Your task to perform on an android device: turn on data saver in the chrome app Image 0: 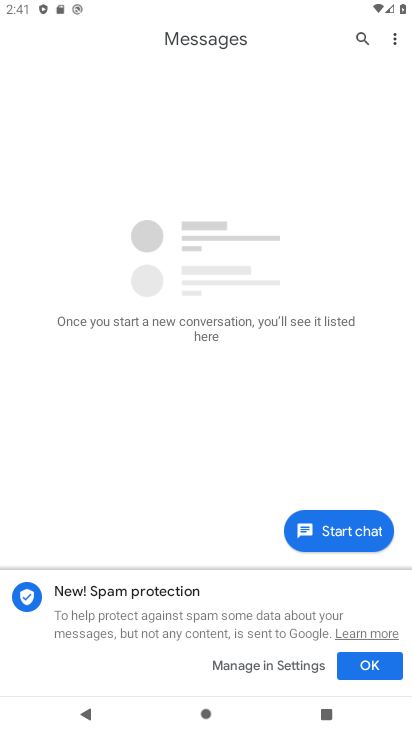
Step 0: press home button
Your task to perform on an android device: turn on data saver in the chrome app Image 1: 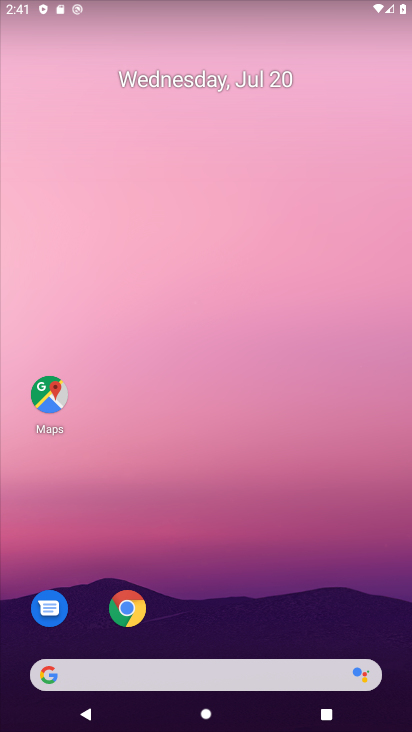
Step 1: drag from (263, 610) to (252, 95)
Your task to perform on an android device: turn on data saver in the chrome app Image 2: 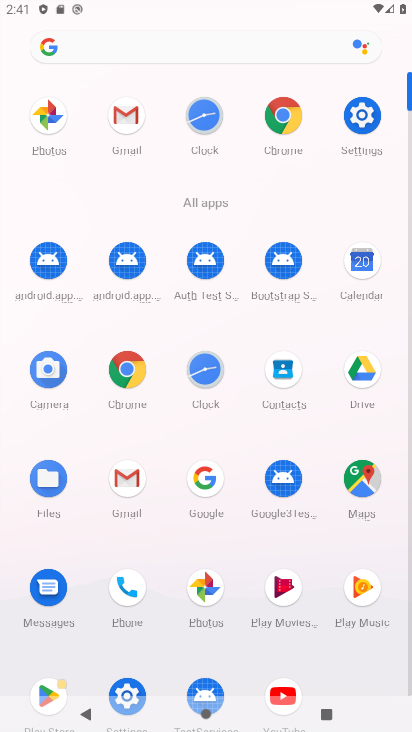
Step 2: click (279, 112)
Your task to perform on an android device: turn on data saver in the chrome app Image 3: 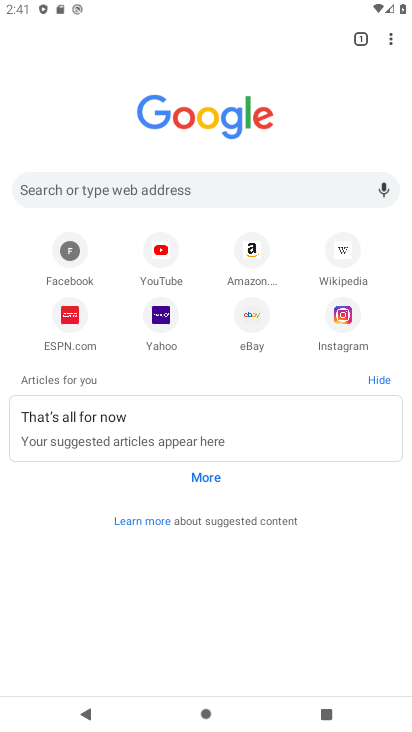
Step 3: drag from (389, 34) to (275, 322)
Your task to perform on an android device: turn on data saver in the chrome app Image 4: 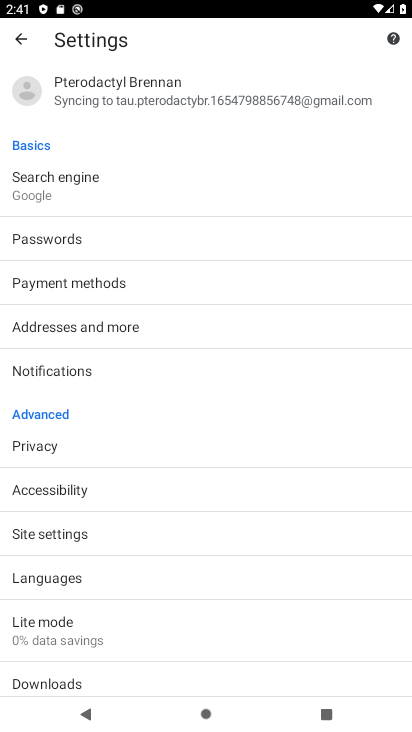
Step 4: click (66, 647)
Your task to perform on an android device: turn on data saver in the chrome app Image 5: 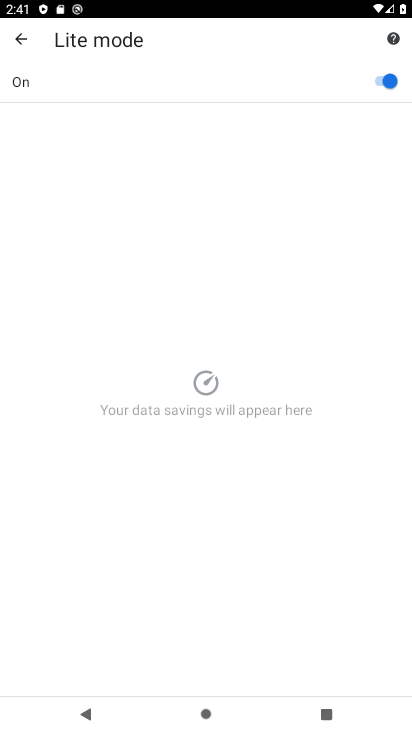
Step 5: task complete